Your task to perform on an android device: Search for Mexican restaurants on Maps Image 0: 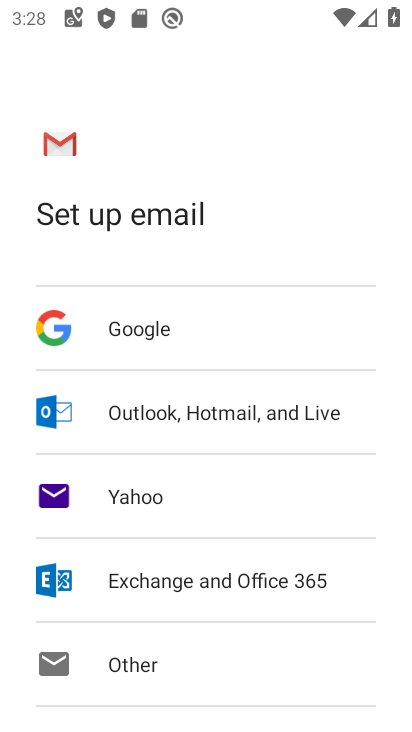
Step 0: press home button
Your task to perform on an android device: Search for Mexican restaurants on Maps Image 1: 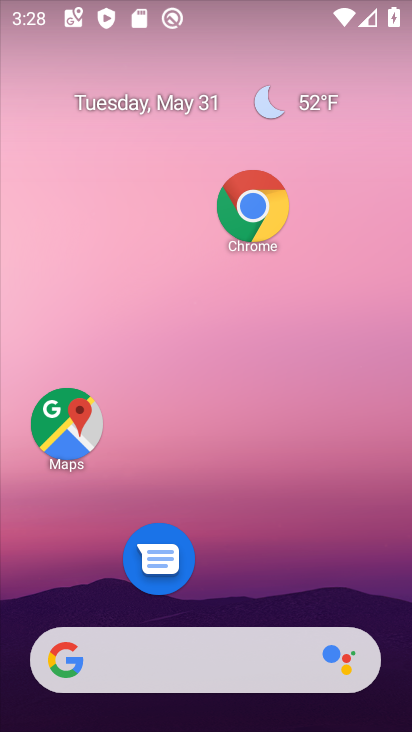
Step 1: click (87, 432)
Your task to perform on an android device: Search for Mexican restaurants on Maps Image 2: 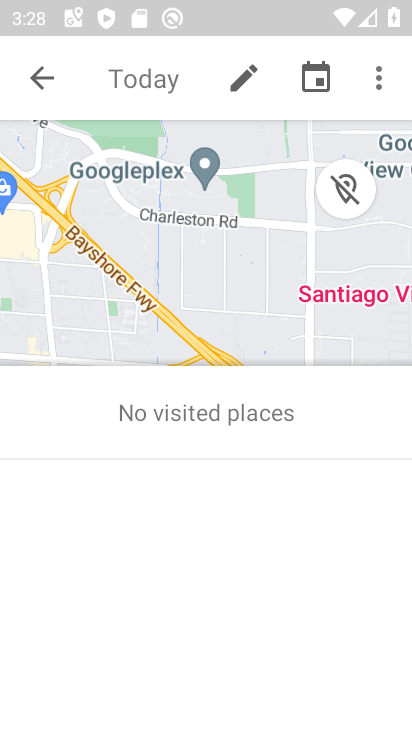
Step 2: click (30, 70)
Your task to perform on an android device: Search for Mexican restaurants on Maps Image 3: 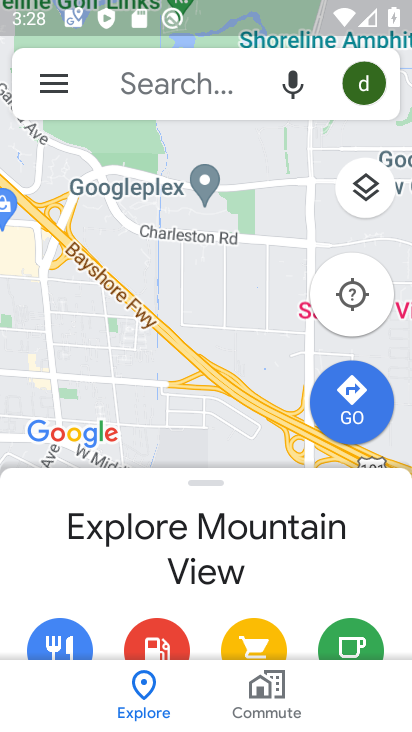
Step 3: click (157, 86)
Your task to perform on an android device: Search for Mexican restaurants on Maps Image 4: 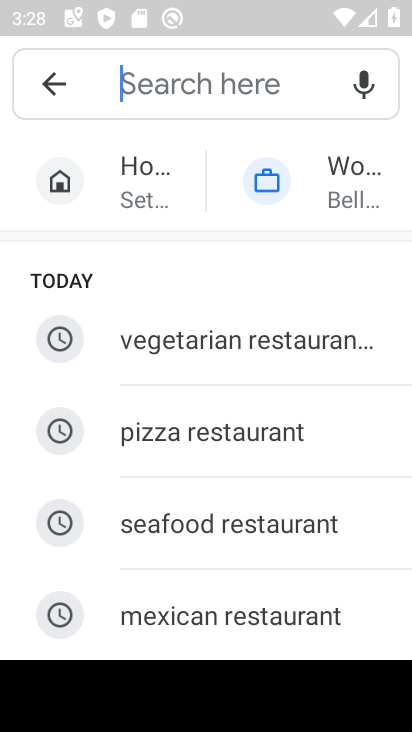
Step 4: click (174, 626)
Your task to perform on an android device: Search for Mexican restaurants on Maps Image 5: 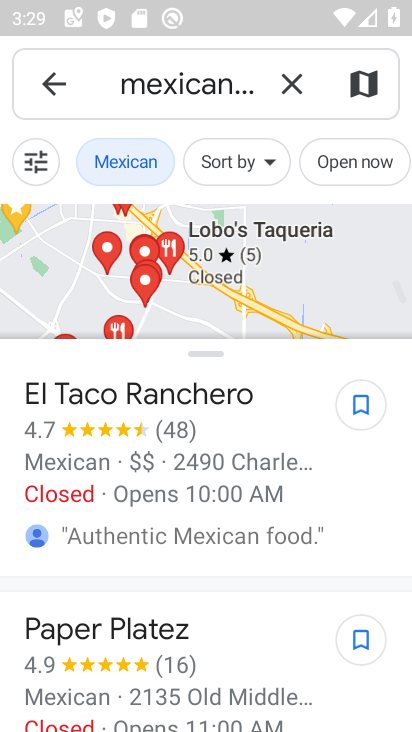
Step 5: task complete